Your task to perform on an android device: Go to ESPN.com Image 0: 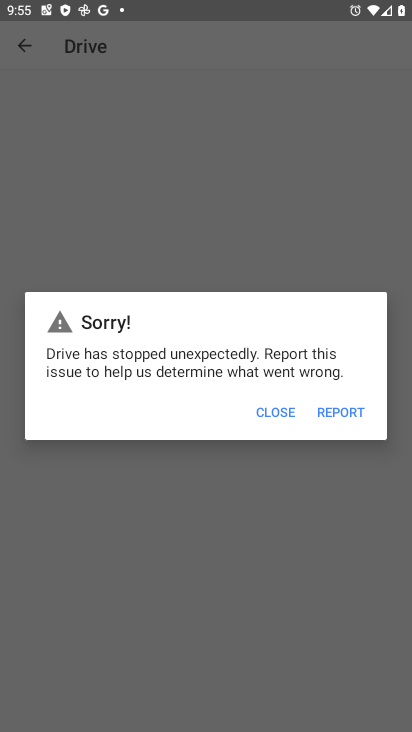
Step 0: drag from (158, 204) to (314, 61)
Your task to perform on an android device: Go to ESPN.com Image 1: 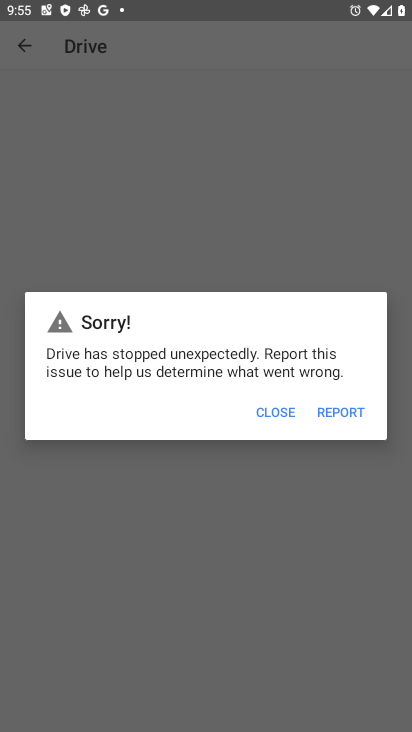
Step 1: press home button
Your task to perform on an android device: Go to ESPN.com Image 2: 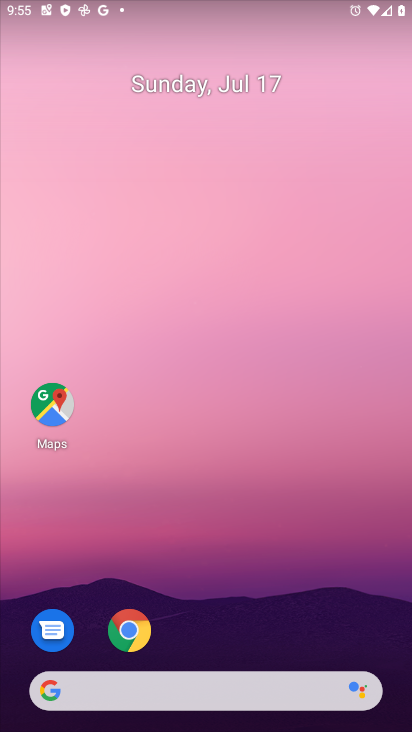
Step 2: click (126, 633)
Your task to perform on an android device: Go to ESPN.com Image 3: 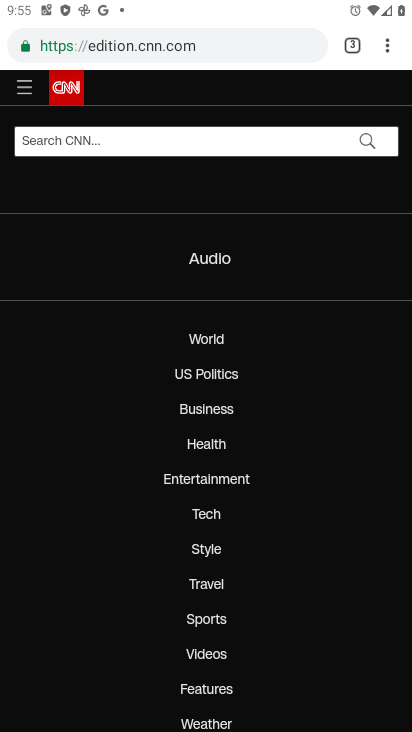
Step 3: click (346, 38)
Your task to perform on an android device: Go to ESPN.com Image 4: 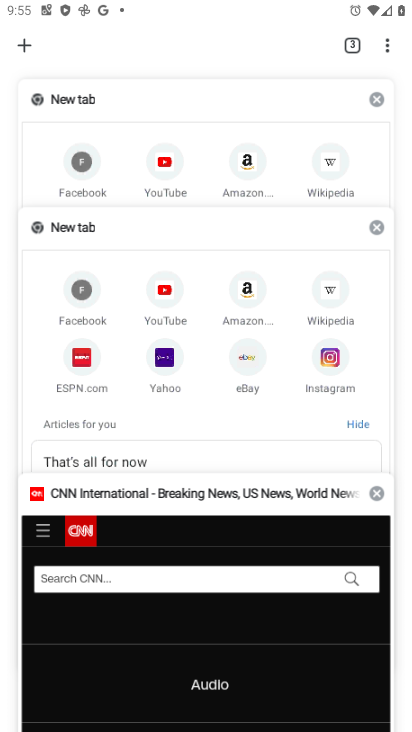
Step 4: click (374, 488)
Your task to perform on an android device: Go to ESPN.com Image 5: 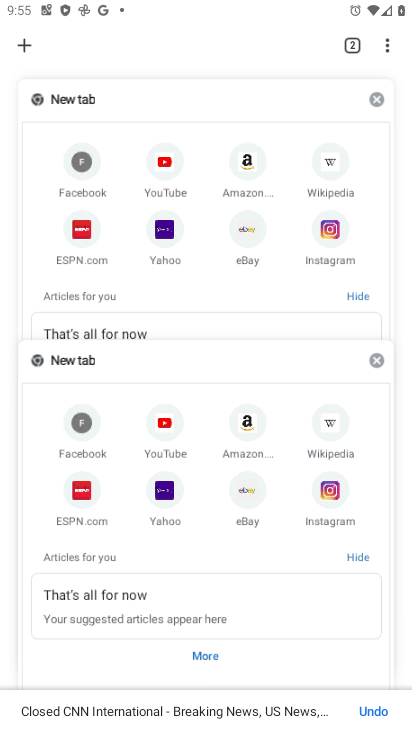
Step 5: click (375, 364)
Your task to perform on an android device: Go to ESPN.com Image 6: 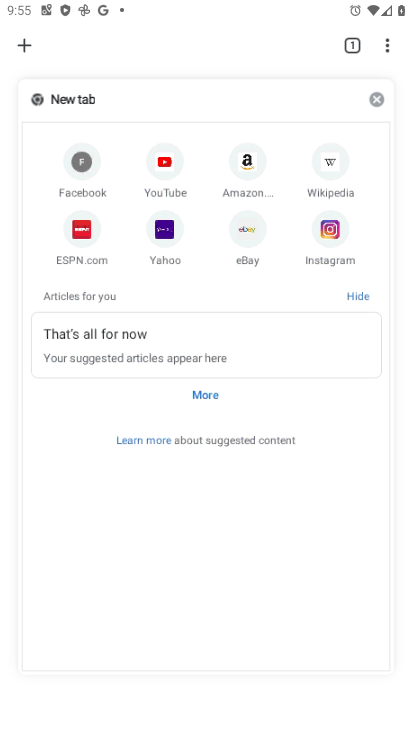
Step 6: click (377, 95)
Your task to perform on an android device: Go to ESPN.com Image 7: 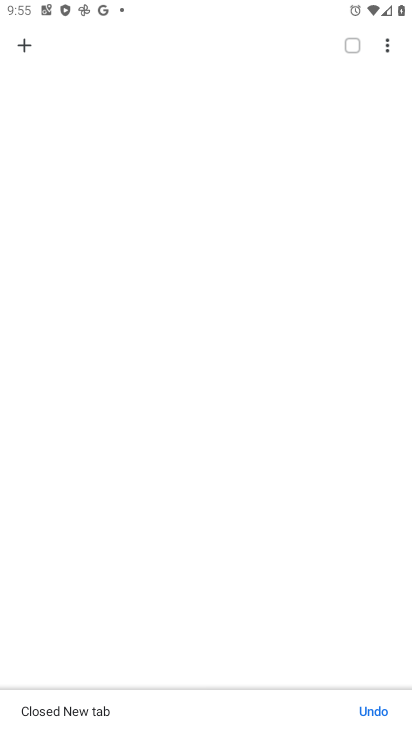
Step 7: click (24, 44)
Your task to perform on an android device: Go to ESPN.com Image 8: 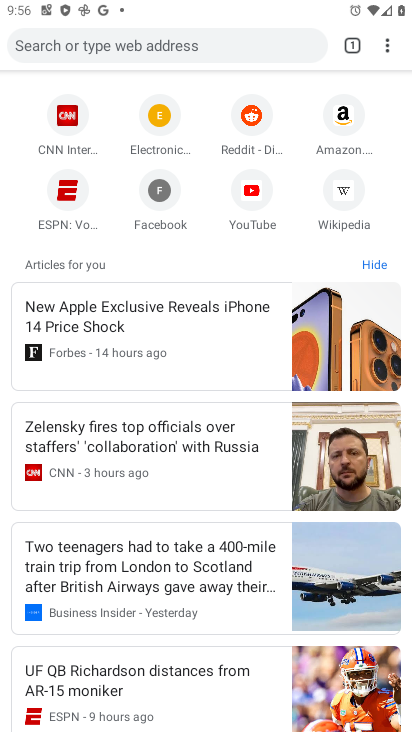
Step 8: click (66, 203)
Your task to perform on an android device: Go to ESPN.com Image 9: 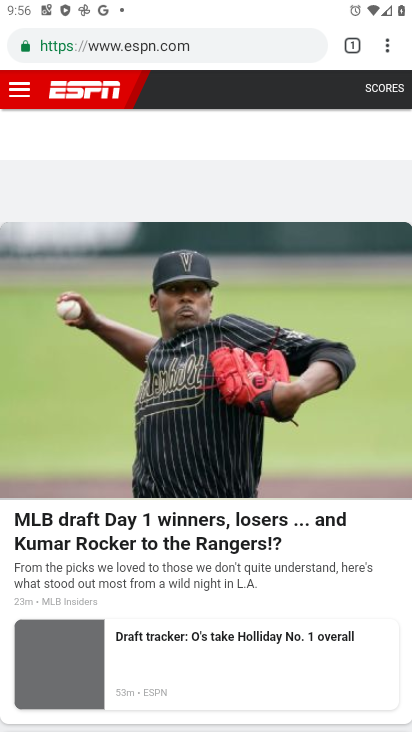
Step 9: task complete